Your task to perform on an android device: Turn off the flashlight Image 0: 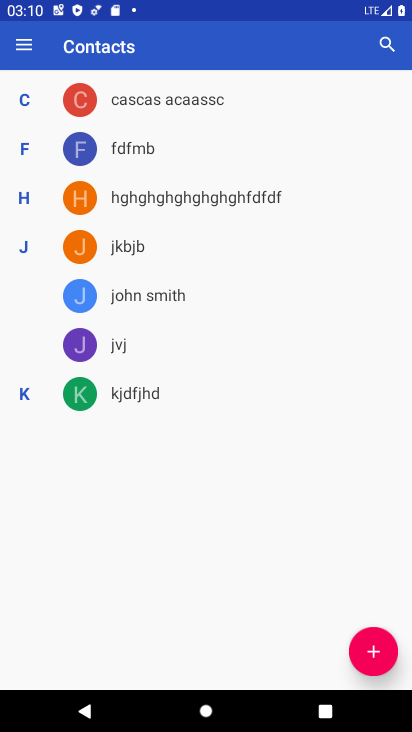
Step 0: press home button
Your task to perform on an android device: Turn off the flashlight Image 1: 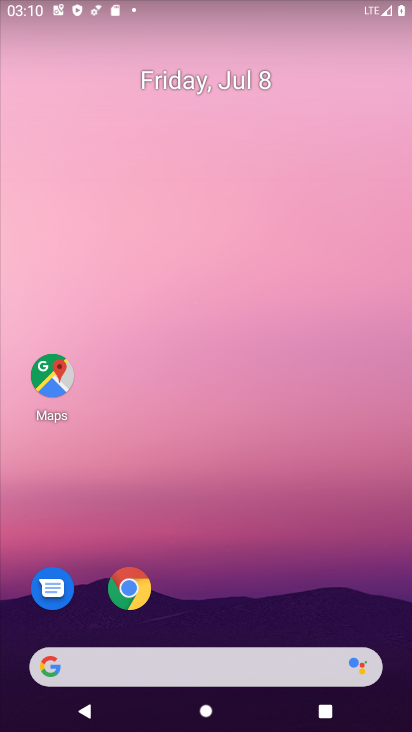
Step 1: task complete